Your task to perform on an android device: install app "Adobe Express: Graphic Design" Image 0: 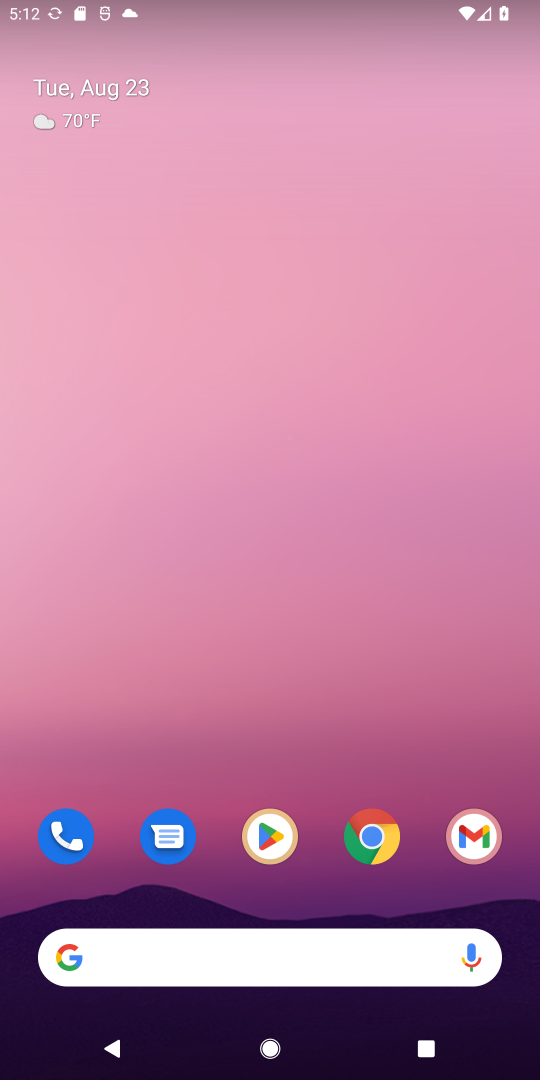
Step 0: click (271, 830)
Your task to perform on an android device: install app "Adobe Express: Graphic Design" Image 1: 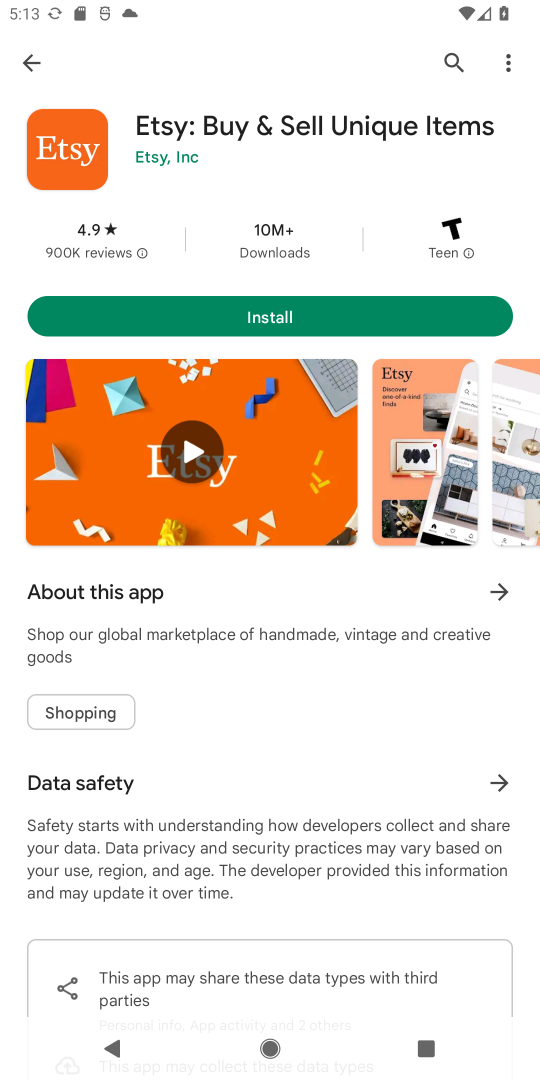
Step 1: click (451, 56)
Your task to perform on an android device: install app "Adobe Express: Graphic Design" Image 2: 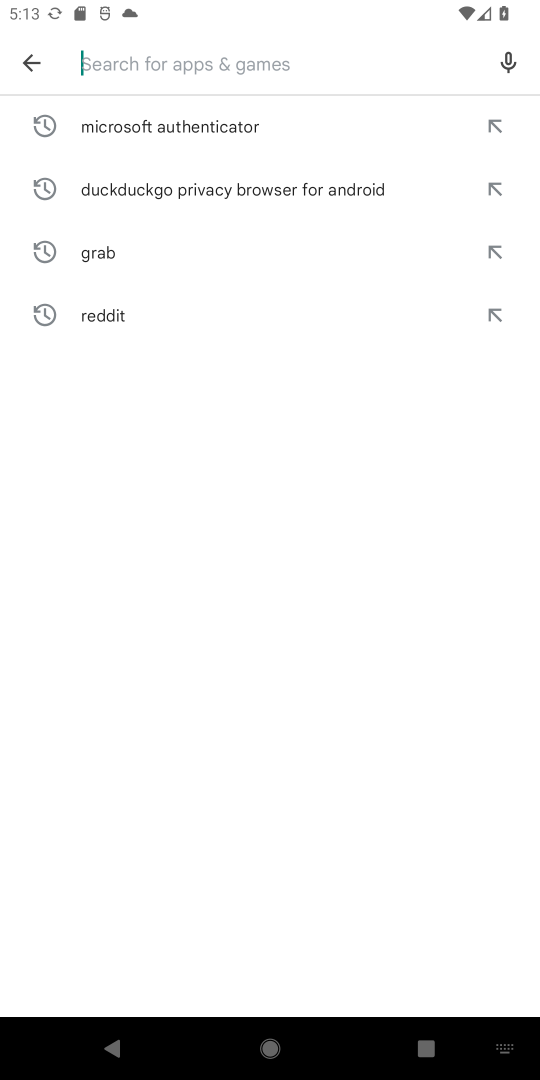
Step 2: type "Adobe Express: Graphic Design"
Your task to perform on an android device: install app "Adobe Express: Graphic Design" Image 3: 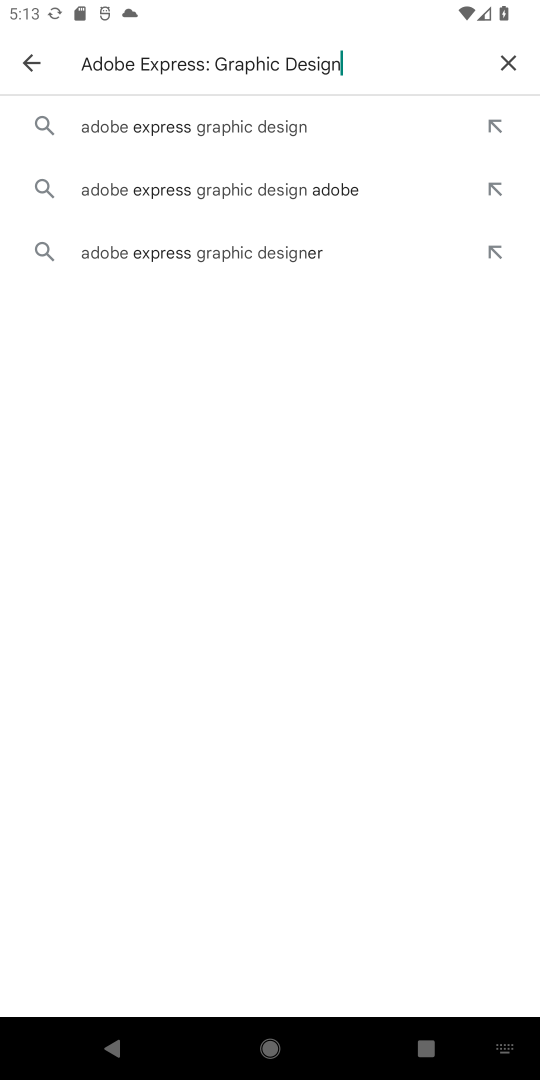
Step 3: click (165, 129)
Your task to perform on an android device: install app "Adobe Express: Graphic Design" Image 4: 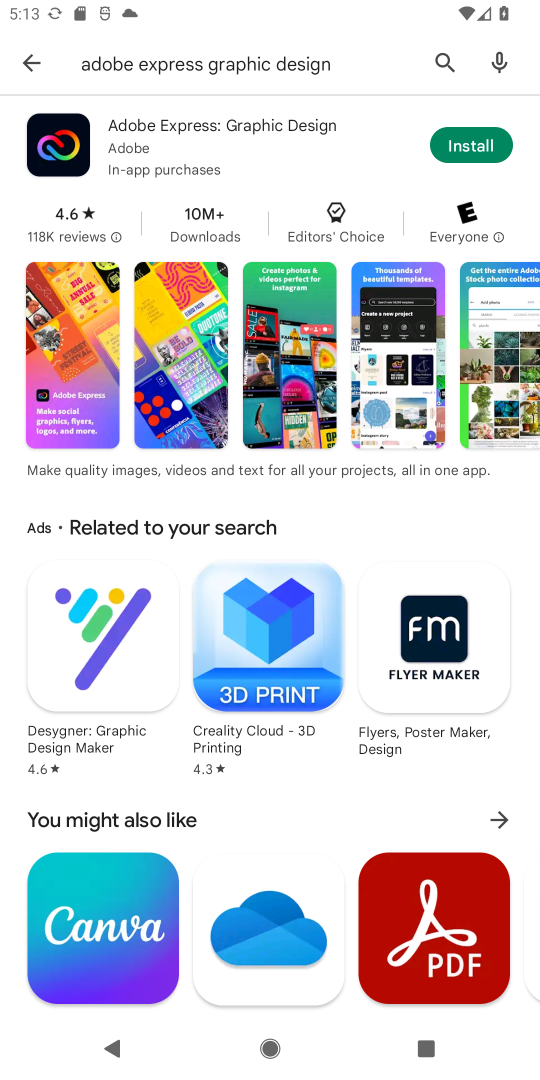
Step 4: click (473, 142)
Your task to perform on an android device: install app "Adobe Express: Graphic Design" Image 5: 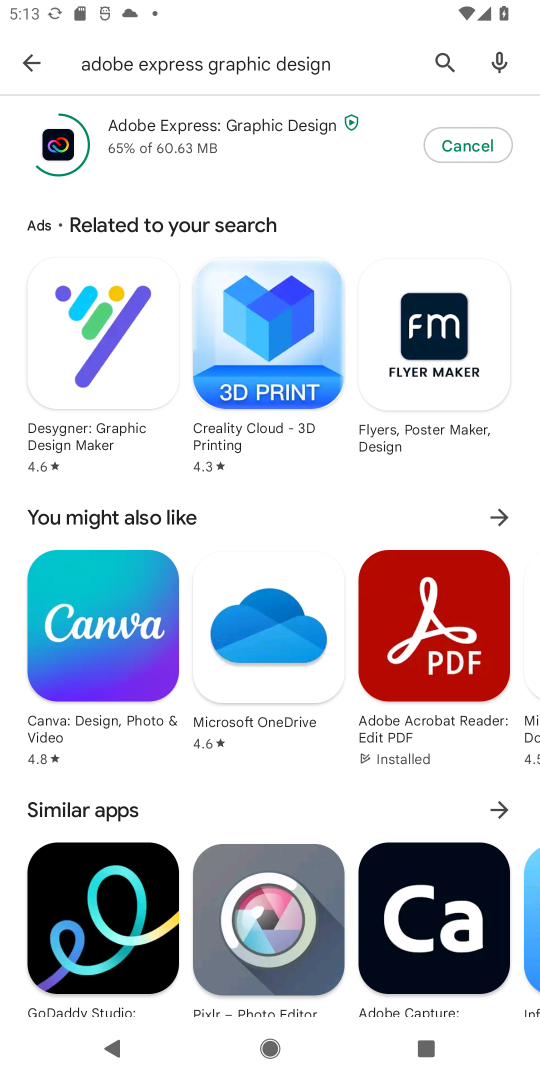
Step 5: click (164, 133)
Your task to perform on an android device: install app "Adobe Express: Graphic Design" Image 6: 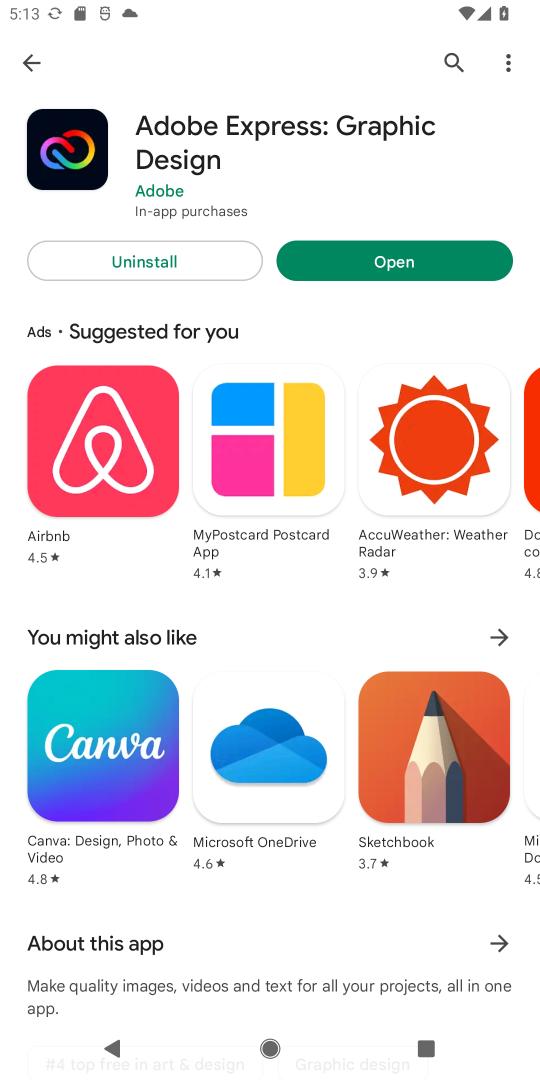
Step 6: task complete